Your task to perform on an android device: change the clock display to analog Image 0: 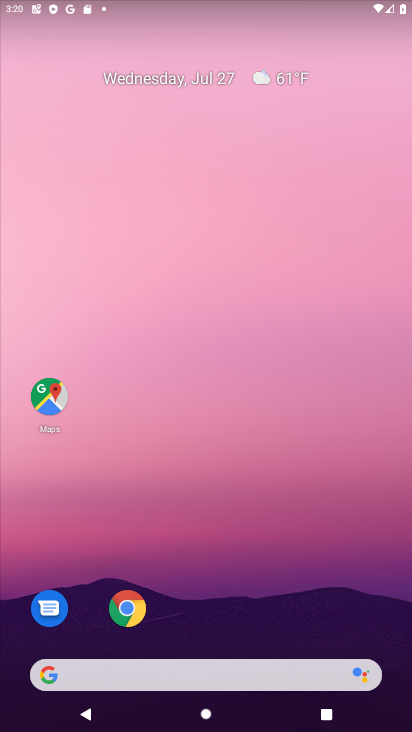
Step 0: drag from (286, 618) to (202, 40)
Your task to perform on an android device: change the clock display to analog Image 1: 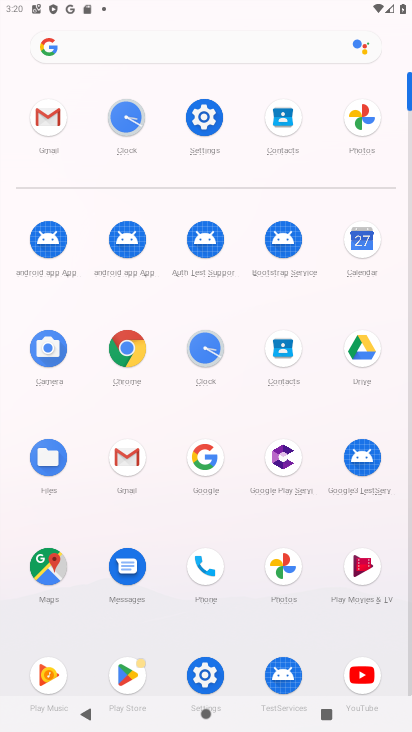
Step 1: click (135, 111)
Your task to perform on an android device: change the clock display to analog Image 2: 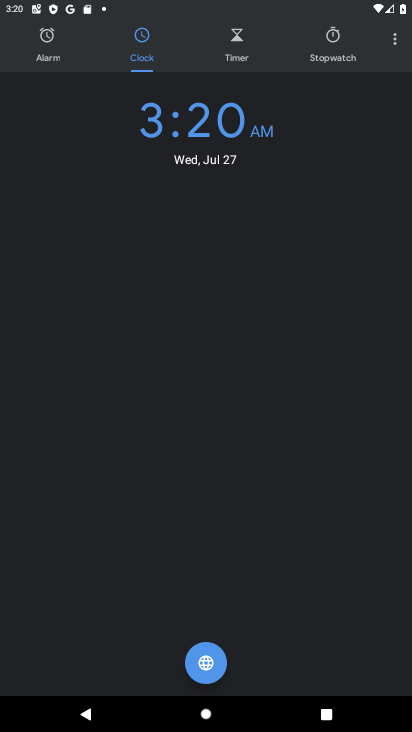
Step 2: click (386, 51)
Your task to perform on an android device: change the clock display to analog Image 3: 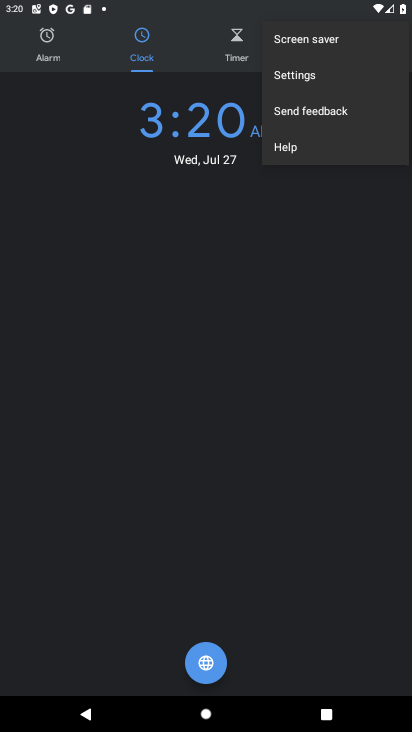
Step 3: click (341, 77)
Your task to perform on an android device: change the clock display to analog Image 4: 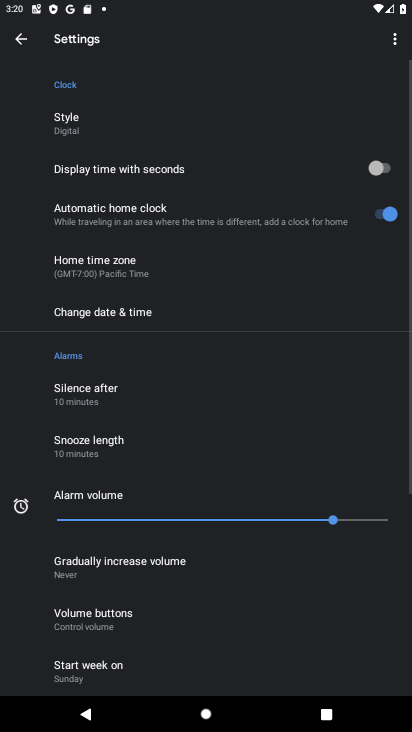
Step 4: click (108, 126)
Your task to perform on an android device: change the clock display to analog Image 5: 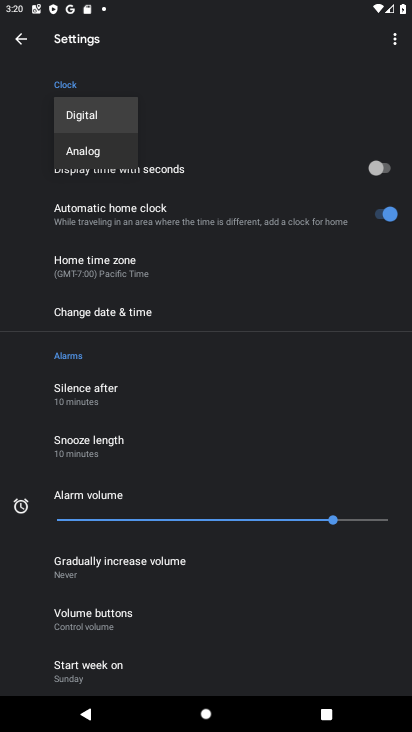
Step 5: click (111, 153)
Your task to perform on an android device: change the clock display to analog Image 6: 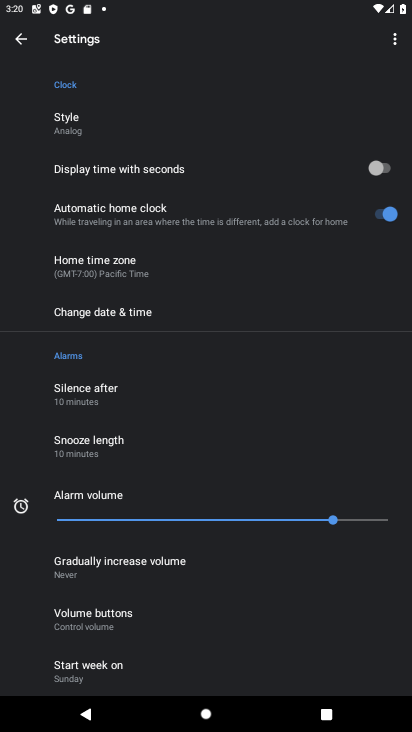
Step 6: task complete